Your task to perform on an android device: Search for Mexican restaurants on Maps Image 0: 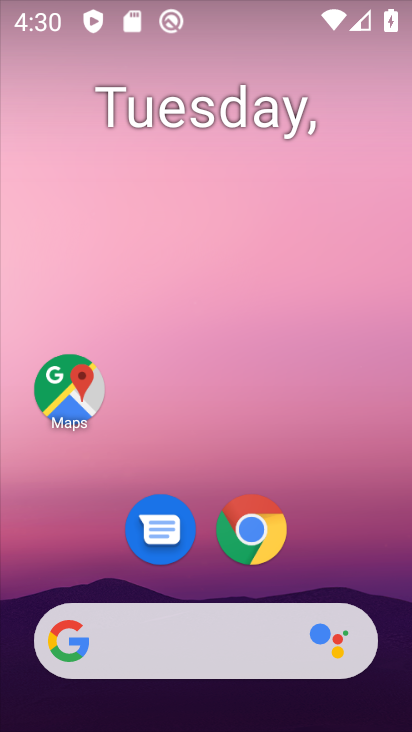
Step 0: drag from (334, 464) to (235, 6)
Your task to perform on an android device: Search for Mexican restaurants on Maps Image 1: 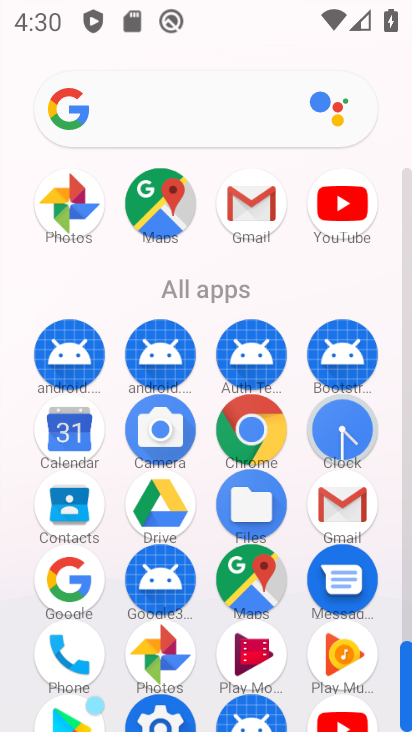
Step 1: drag from (12, 619) to (4, 306)
Your task to perform on an android device: Search for Mexican restaurants on Maps Image 2: 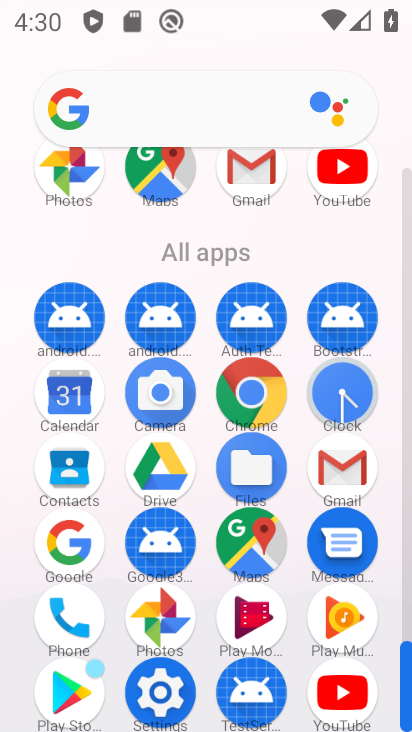
Step 2: click (249, 539)
Your task to perform on an android device: Search for Mexican restaurants on Maps Image 3: 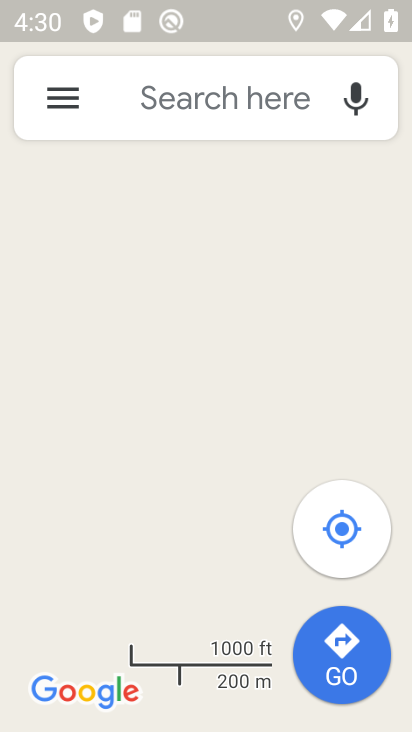
Step 3: click (142, 87)
Your task to perform on an android device: Search for Mexican restaurants on Maps Image 4: 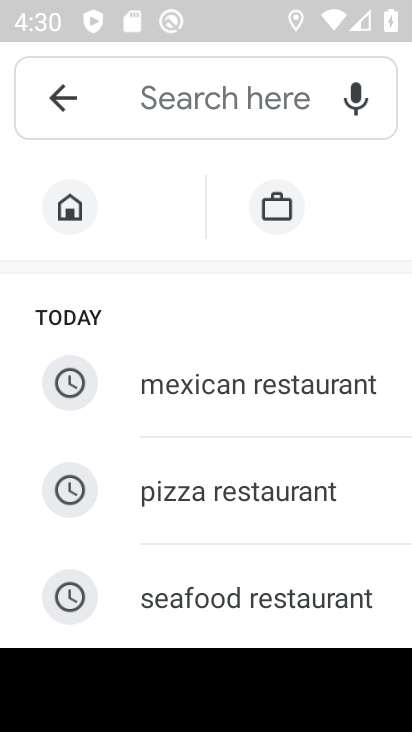
Step 4: click (204, 405)
Your task to perform on an android device: Search for Mexican restaurants on Maps Image 5: 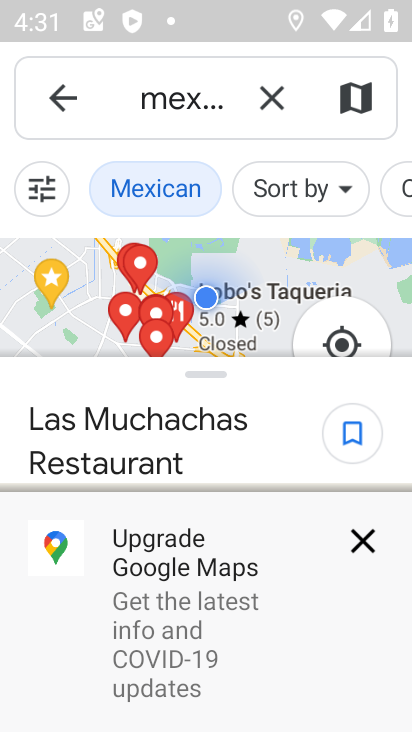
Step 5: task complete